Your task to perform on an android device: toggle sleep mode Image 0: 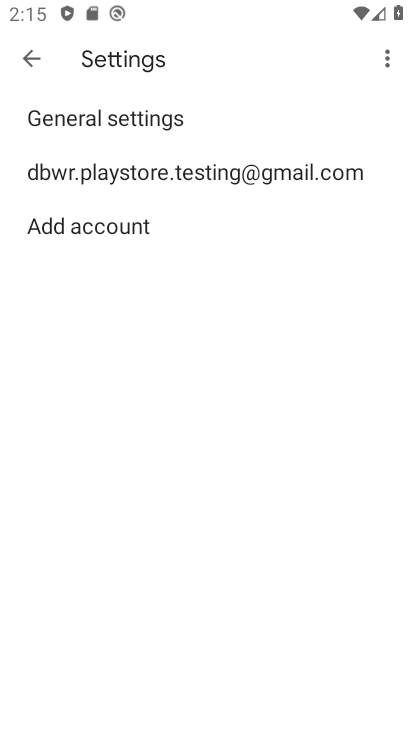
Step 0: press back button
Your task to perform on an android device: toggle sleep mode Image 1: 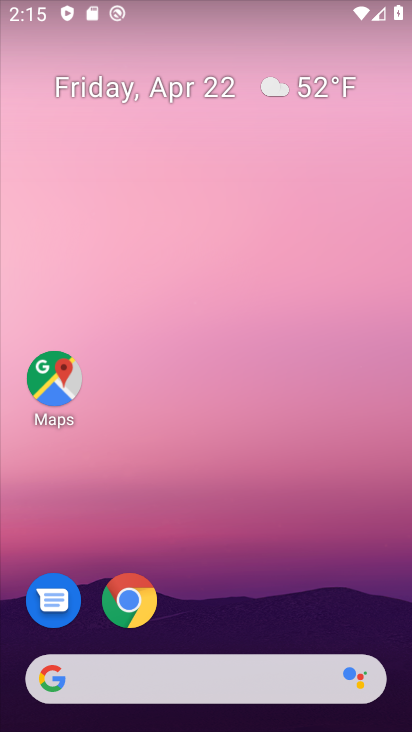
Step 1: drag from (359, 481) to (242, 12)
Your task to perform on an android device: toggle sleep mode Image 2: 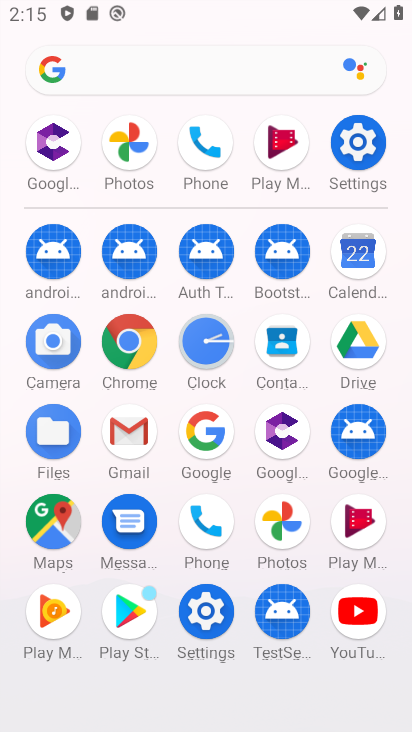
Step 2: click (357, 134)
Your task to perform on an android device: toggle sleep mode Image 3: 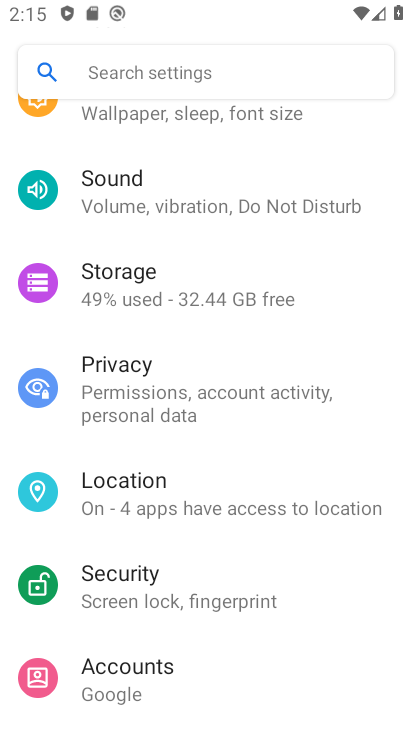
Step 3: drag from (305, 191) to (288, 442)
Your task to perform on an android device: toggle sleep mode Image 4: 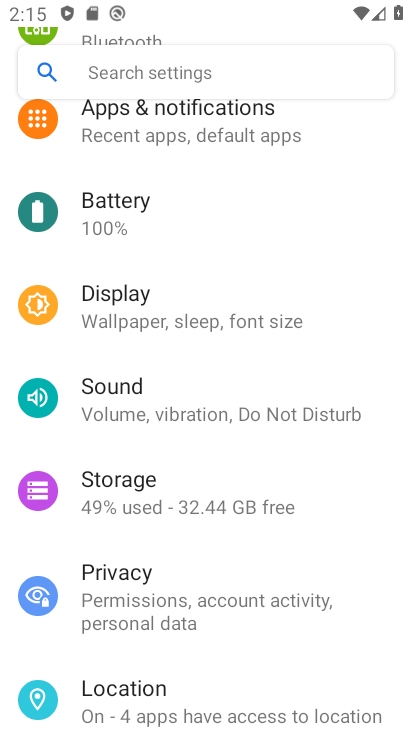
Step 4: click (194, 302)
Your task to perform on an android device: toggle sleep mode Image 5: 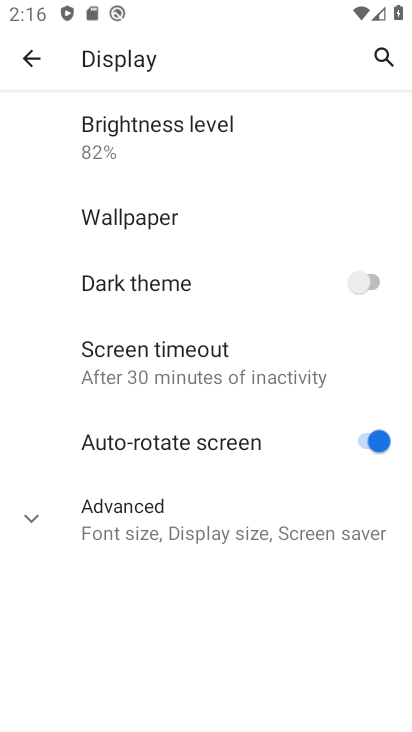
Step 5: click (29, 512)
Your task to perform on an android device: toggle sleep mode Image 6: 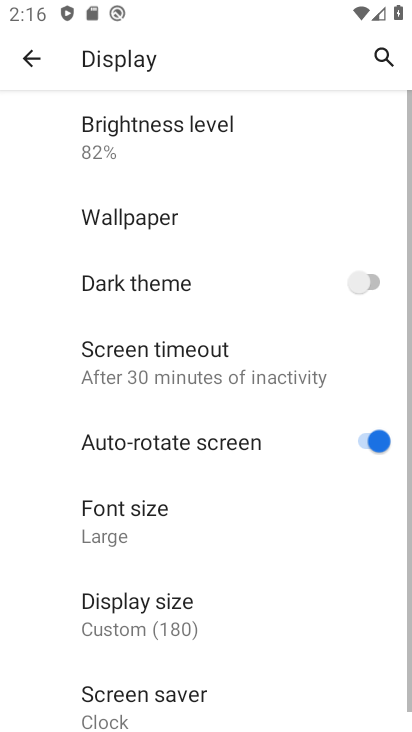
Step 6: task complete